Your task to perform on an android device: open app "DoorDash - Food Delivery" Image 0: 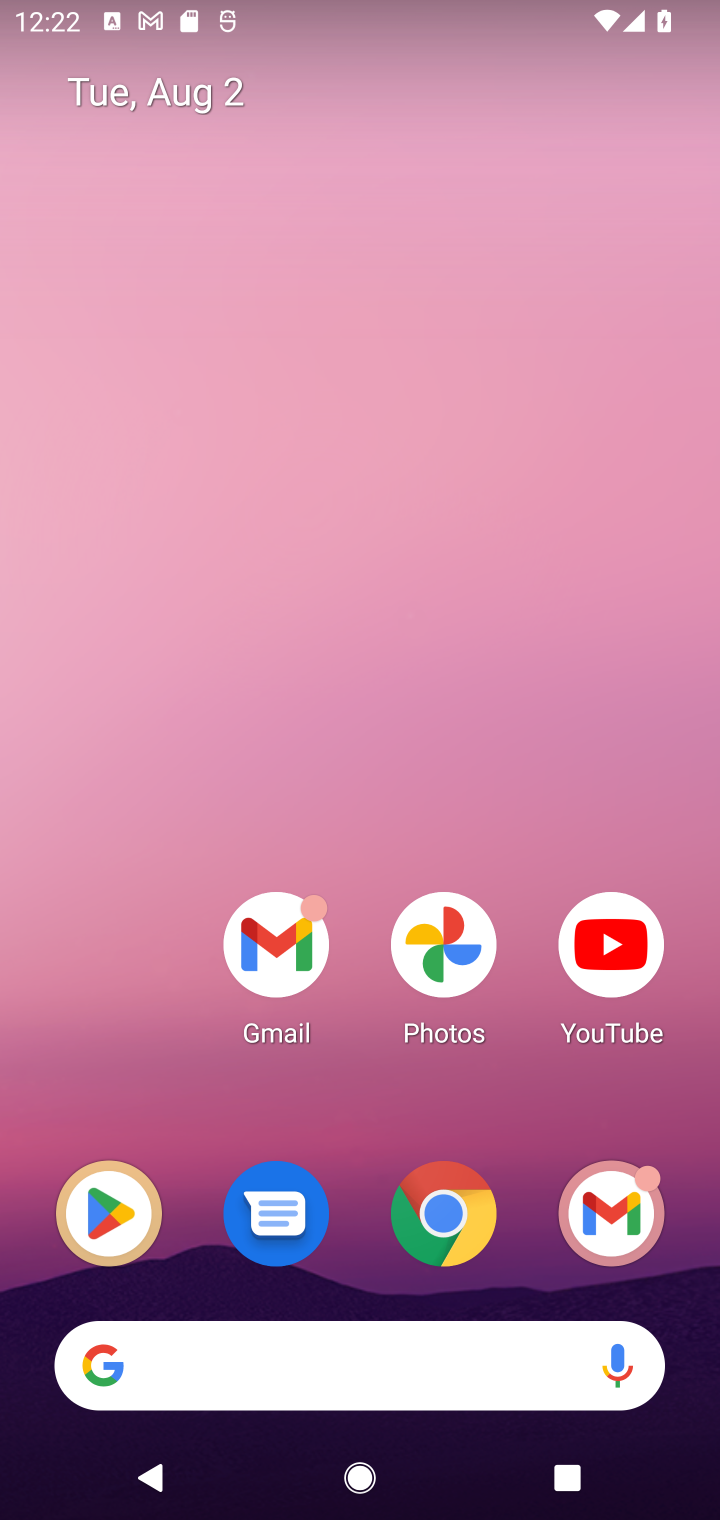
Step 0: click (124, 1233)
Your task to perform on an android device: open app "DoorDash - Food Delivery" Image 1: 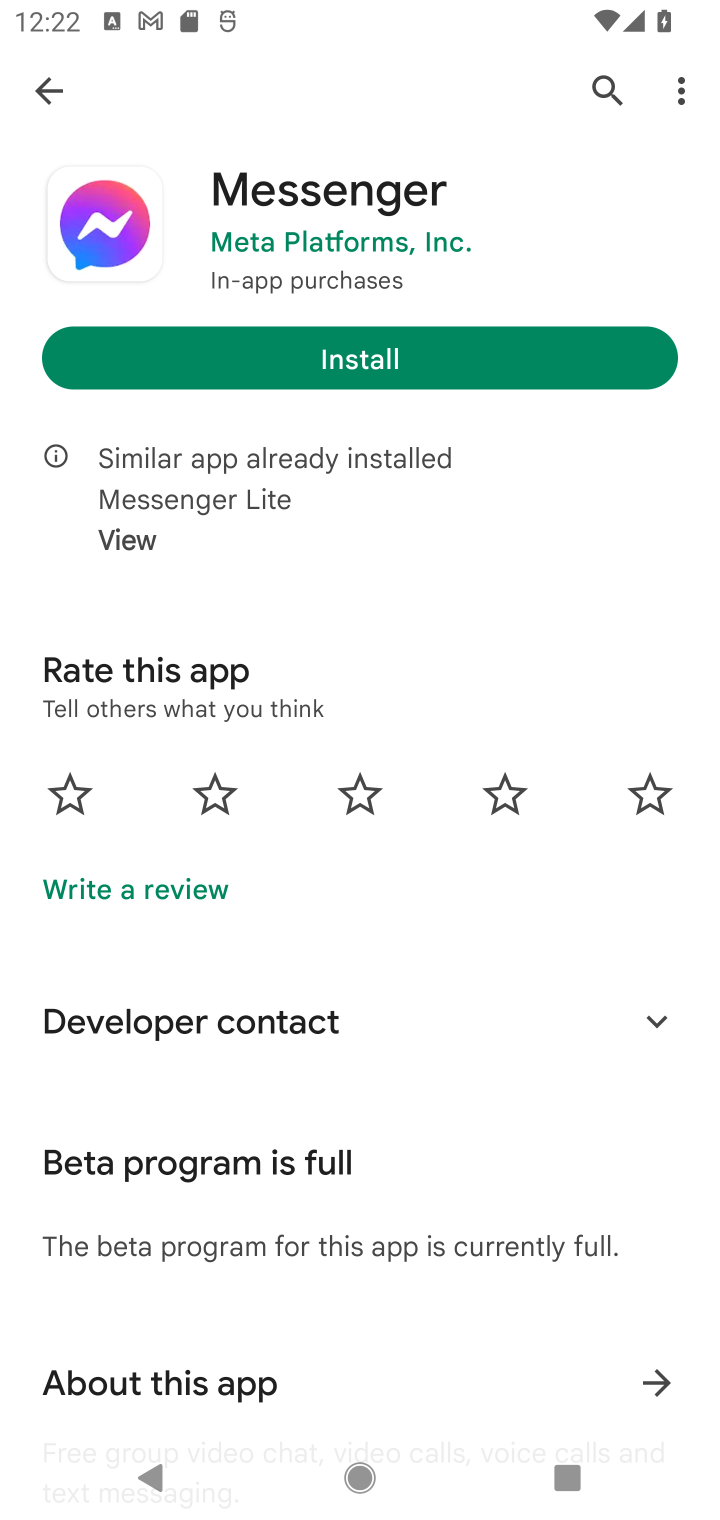
Step 1: drag from (120, 1209) to (44, 84)
Your task to perform on an android device: open app "DoorDash - Food Delivery" Image 2: 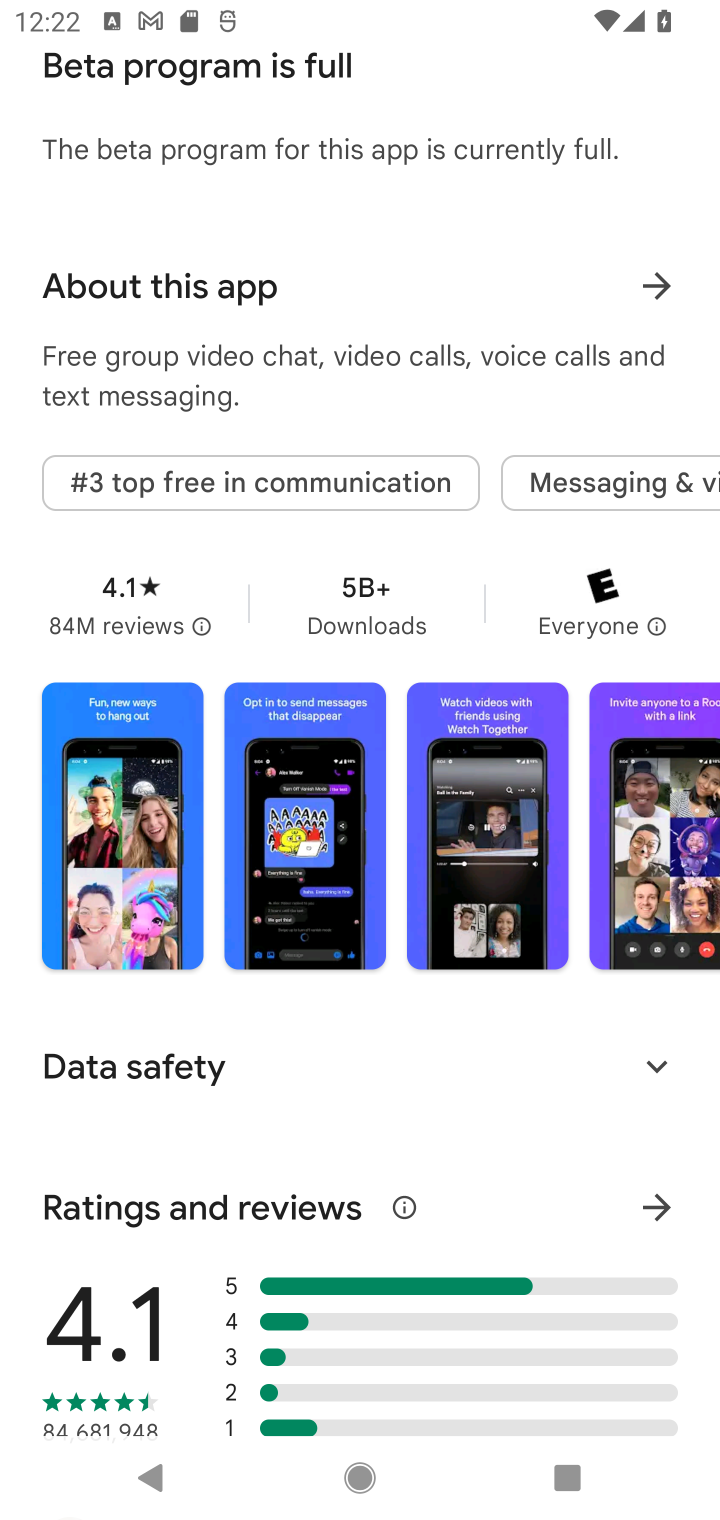
Step 2: click (44, 84)
Your task to perform on an android device: open app "DoorDash - Food Delivery" Image 3: 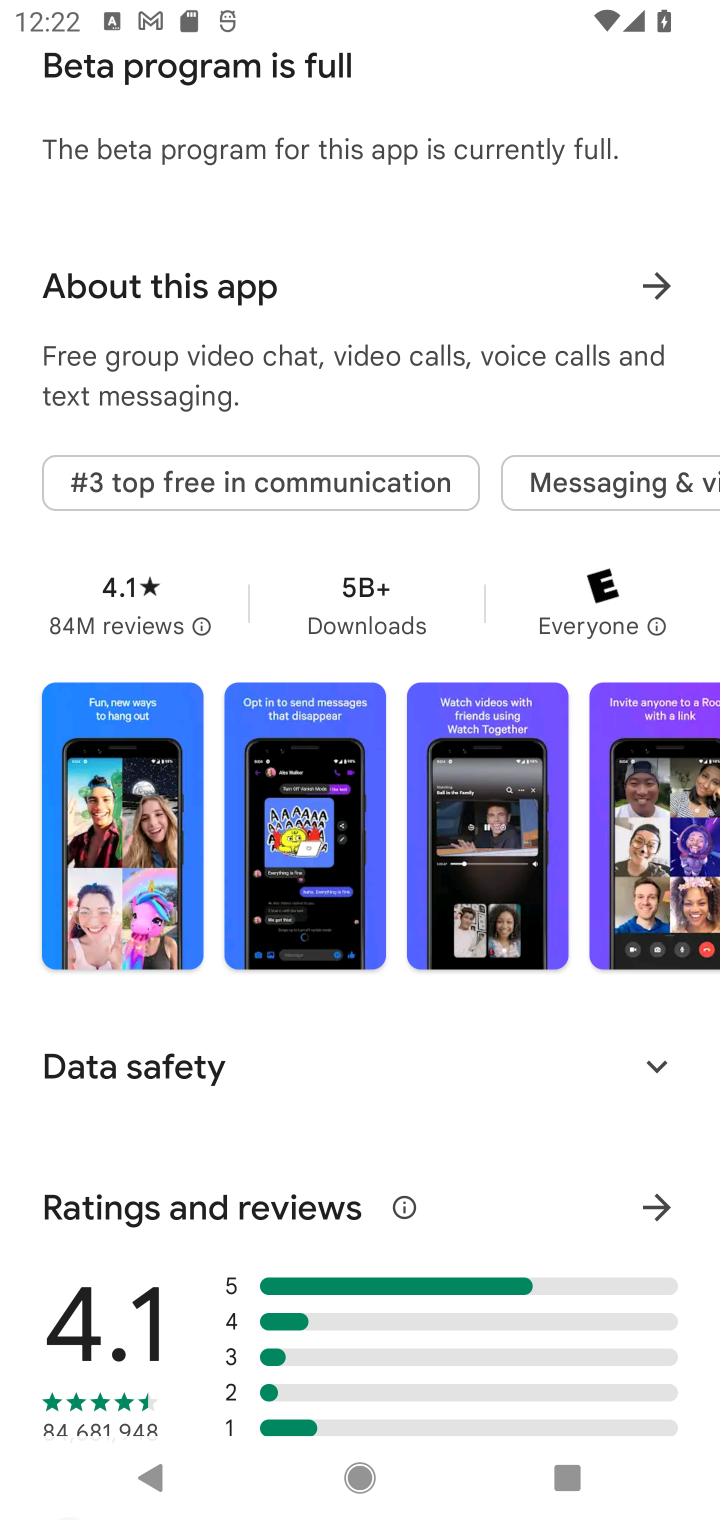
Step 3: press back button
Your task to perform on an android device: open app "DoorDash - Food Delivery" Image 4: 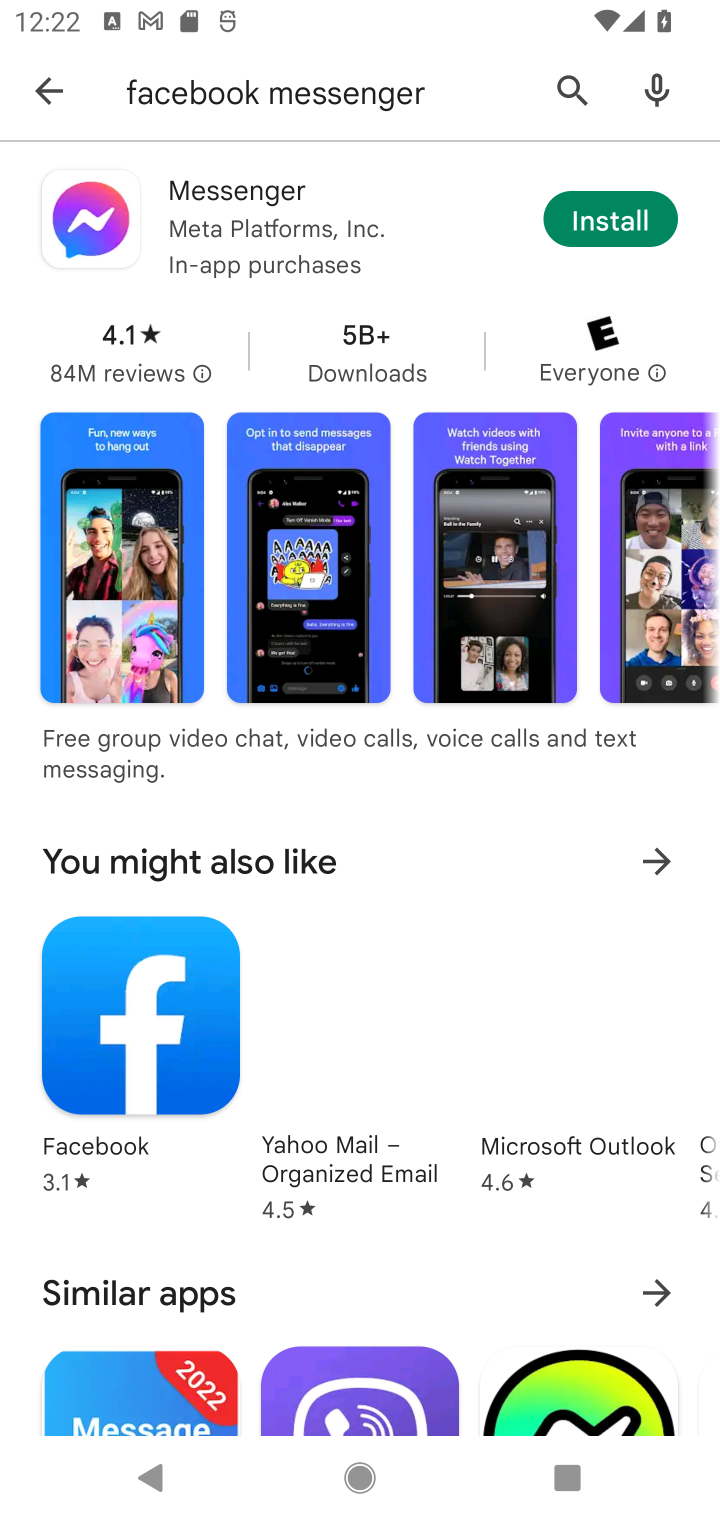
Step 4: click (54, 77)
Your task to perform on an android device: open app "DoorDash - Food Delivery" Image 5: 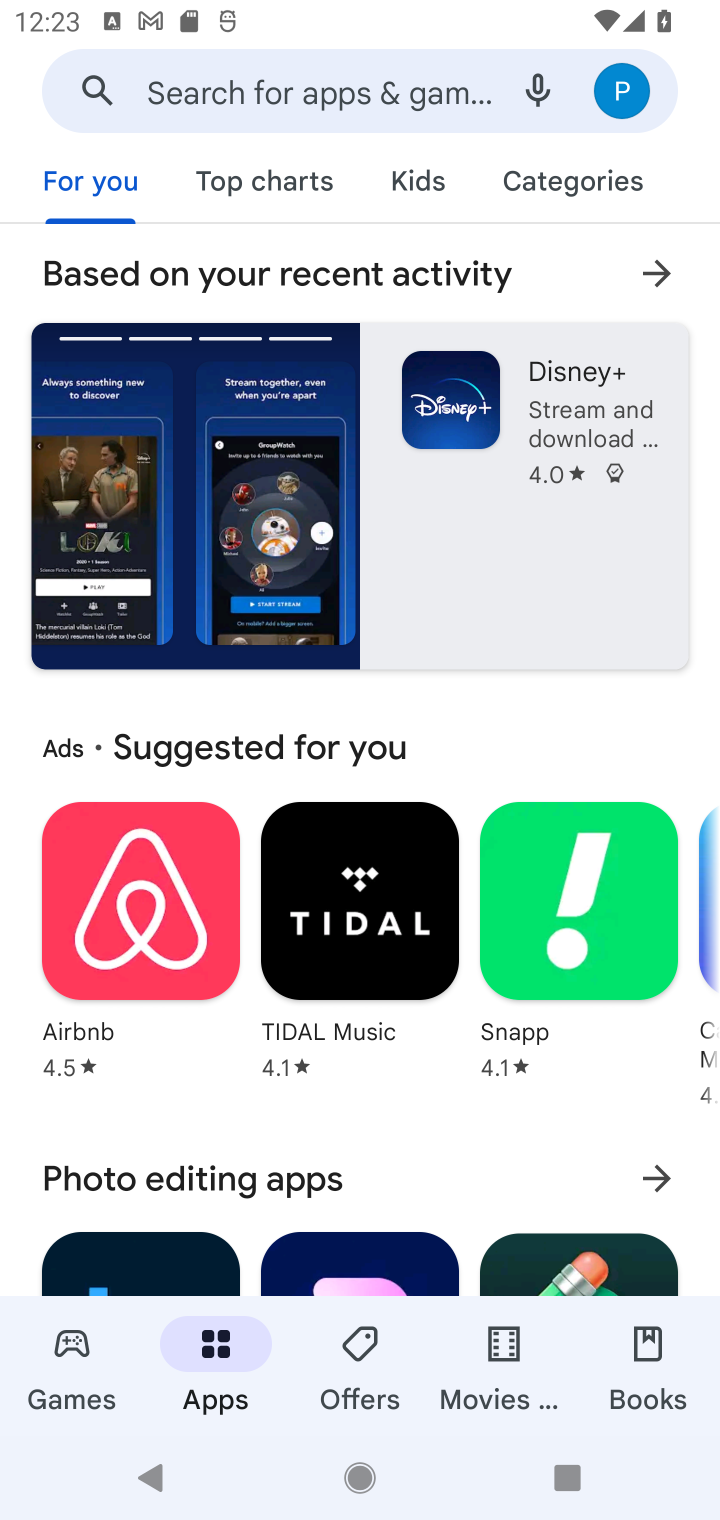
Step 5: click (348, 88)
Your task to perform on an android device: open app "DoorDash - Food Delivery" Image 6: 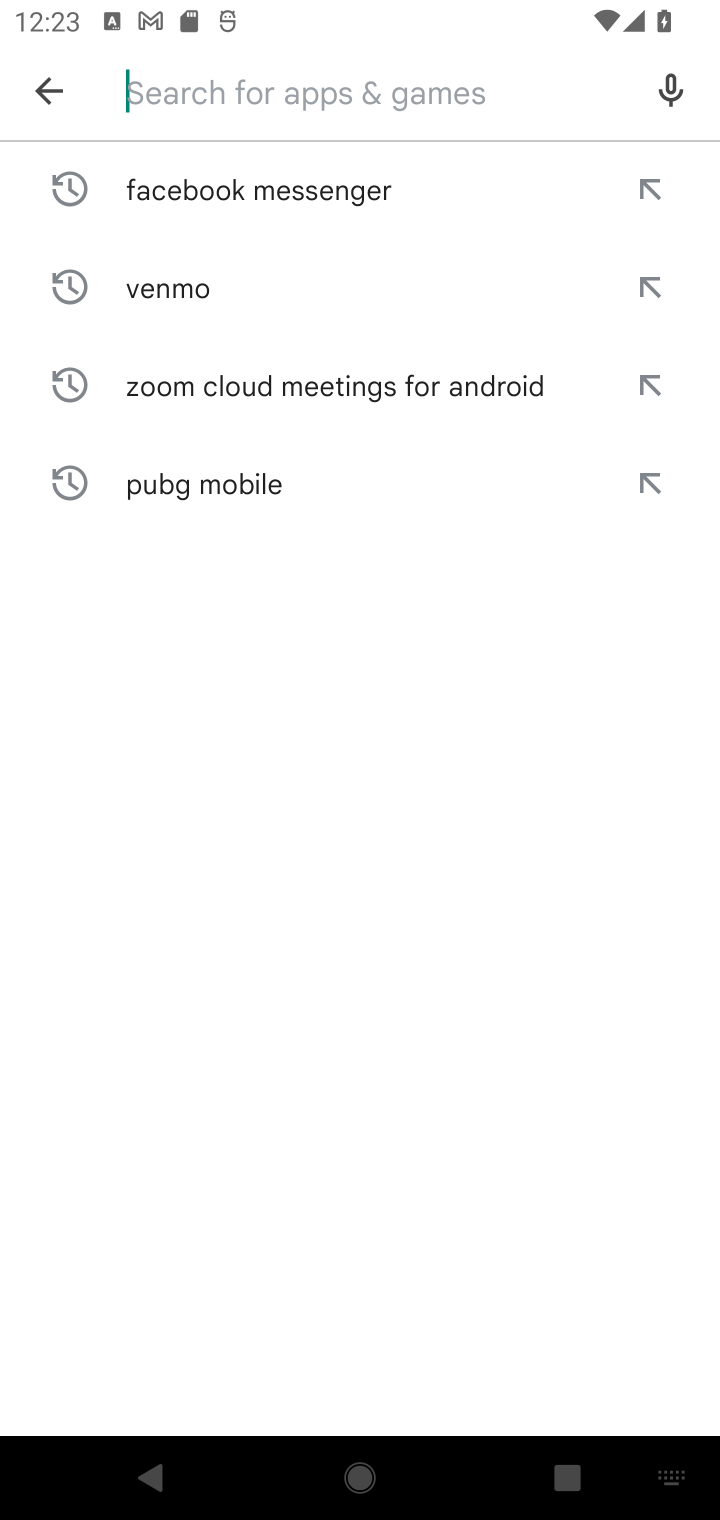
Step 6: type "DoorDash - Food Delivery"
Your task to perform on an android device: open app "DoorDash - Food Delivery" Image 7: 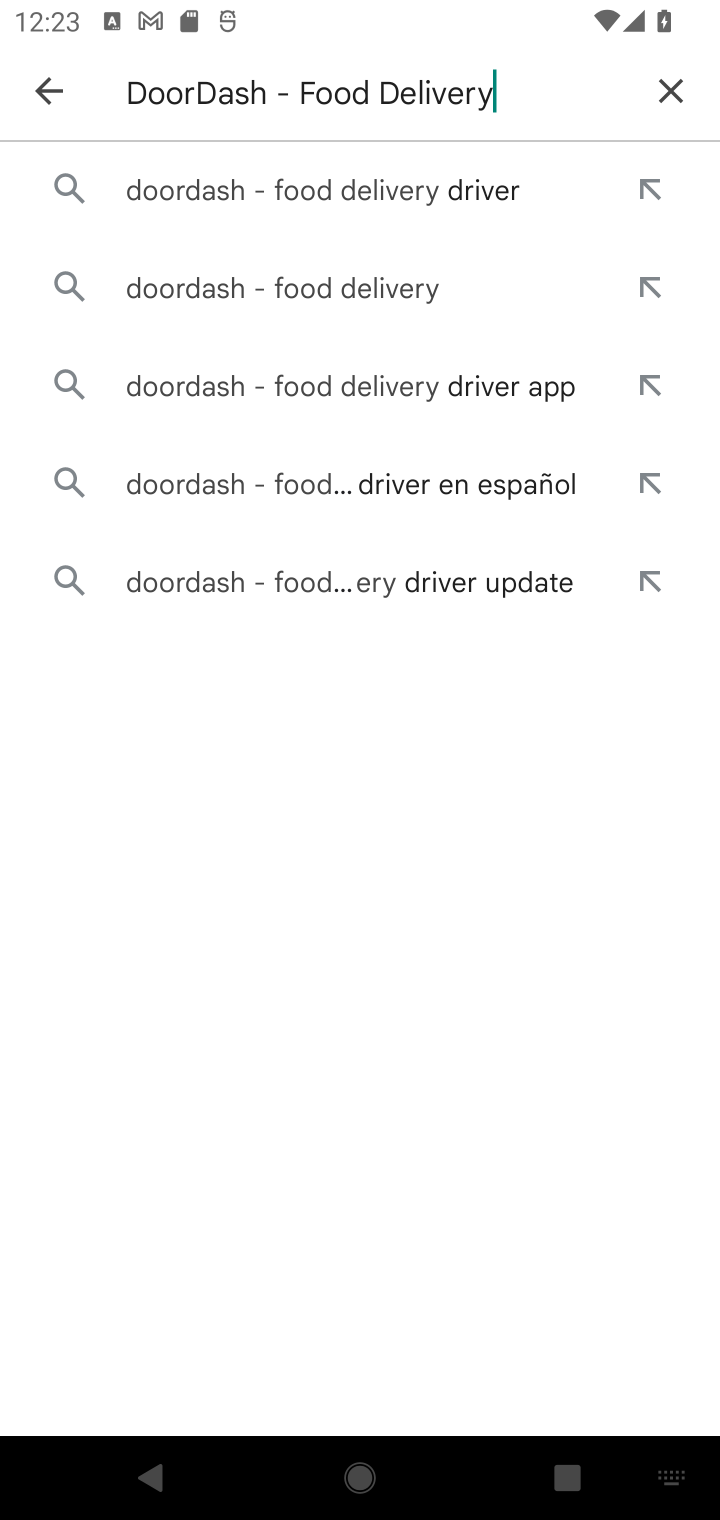
Step 7: click (204, 195)
Your task to perform on an android device: open app "DoorDash - Food Delivery" Image 8: 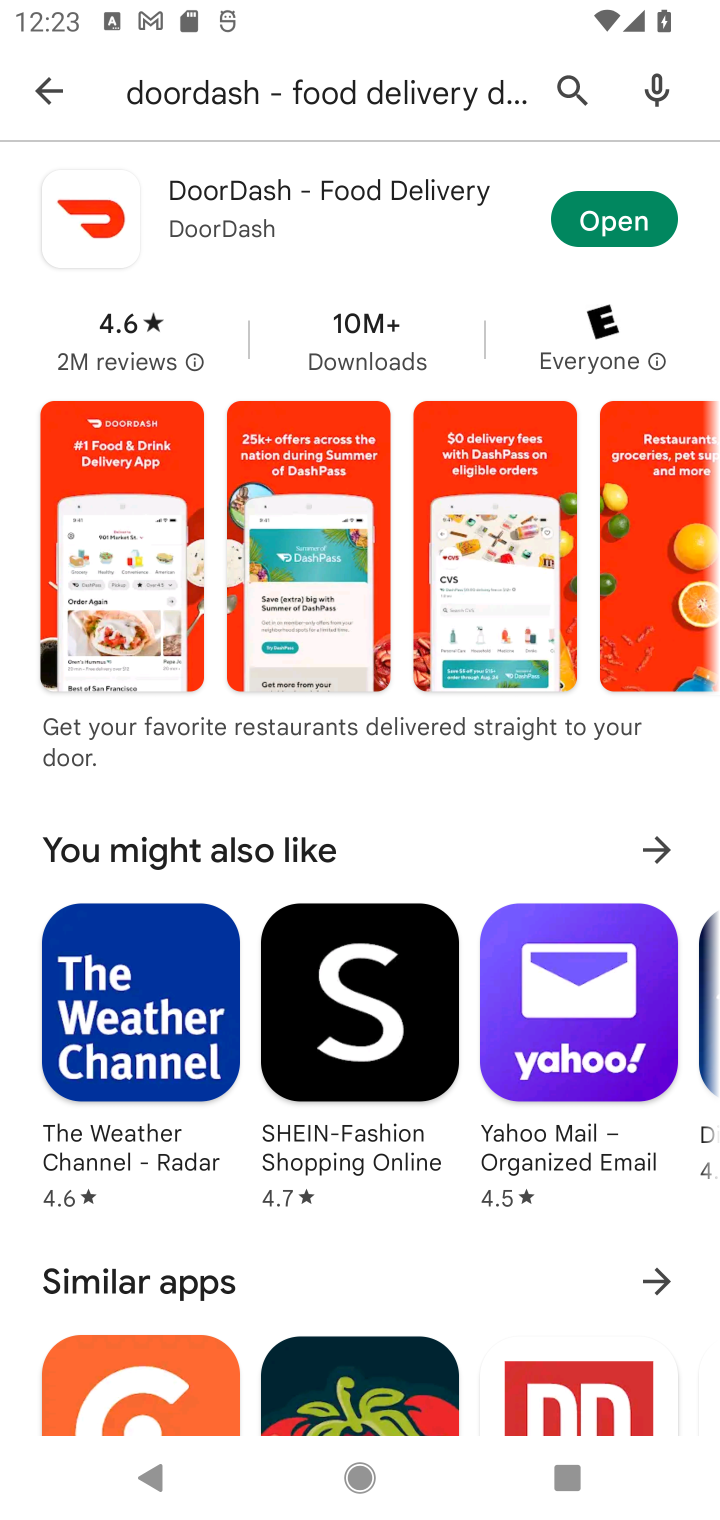
Step 8: click (591, 217)
Your task to perform on an android device: open app "DoorDash - Food Delivery" Image 9: 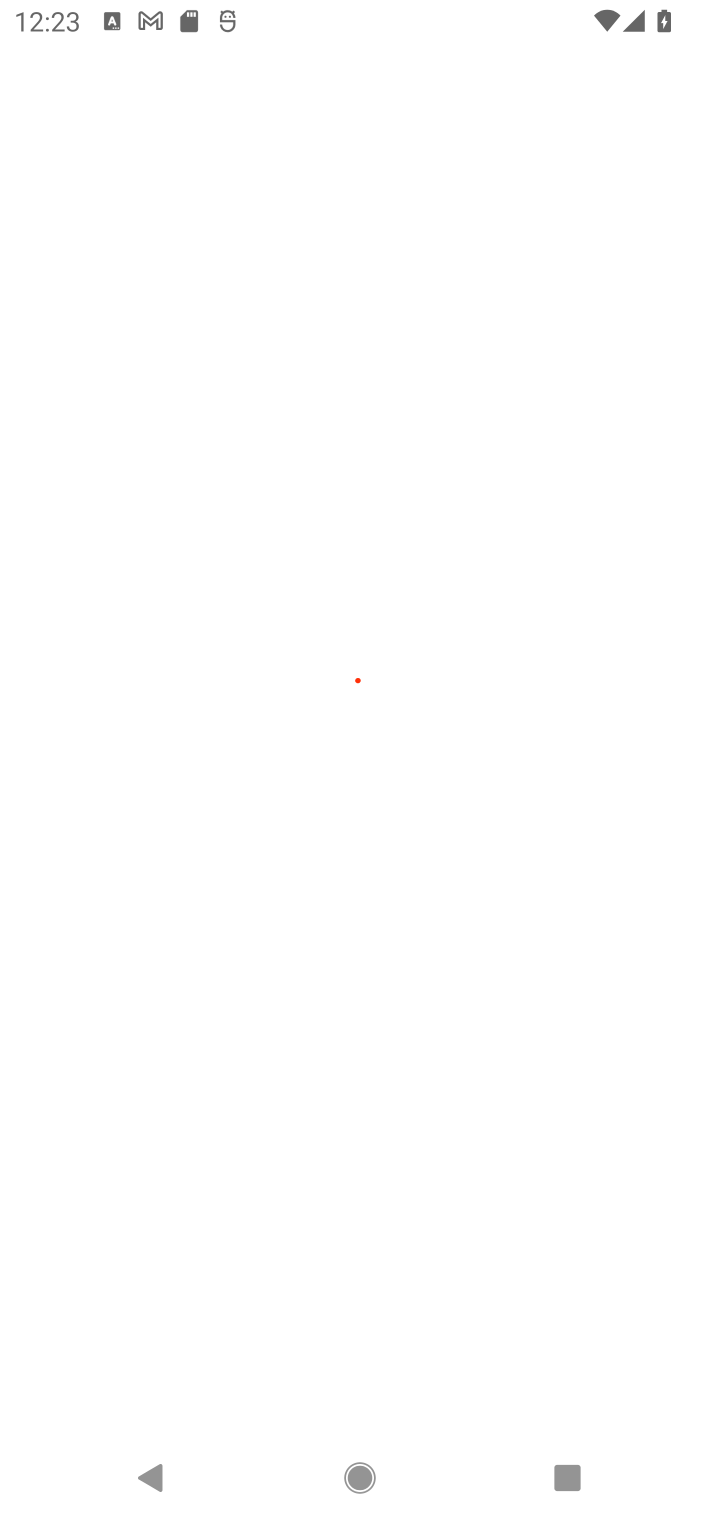
Step 9: task complete